Your task to perform on an android device: Do I have any events today? Image 0: 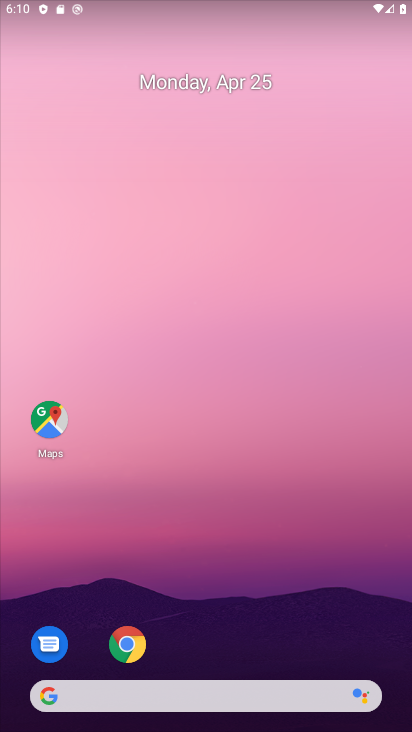
Step 0: drag from (256, 618) to (255, 116)
Your task to perform on an android device: Do I have any events today? Image 1: 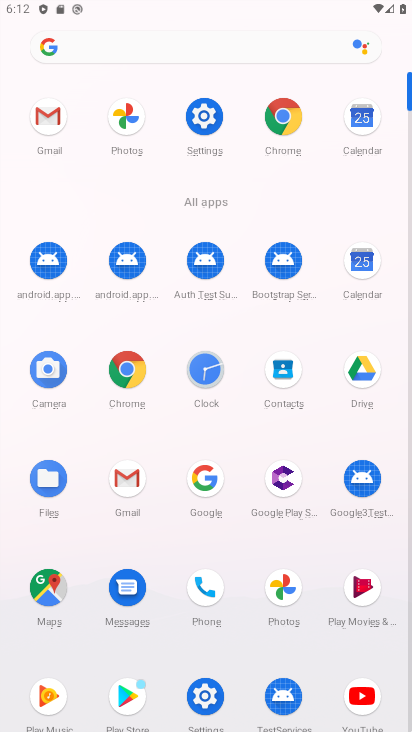
Step 1: click (311, 558)
Your task to perform on an android device: Do I have any events today? Image 2: 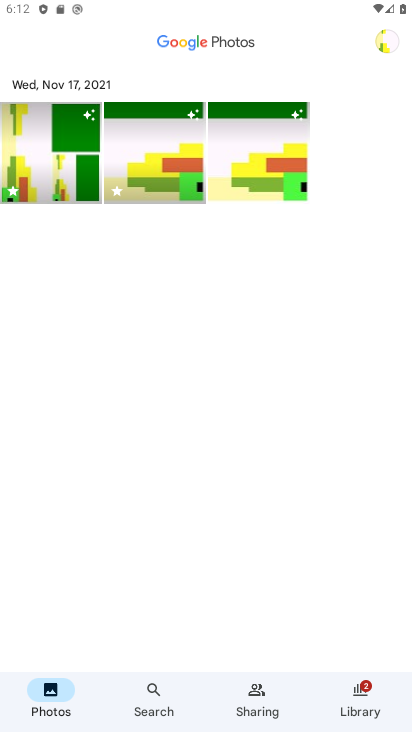
Step 2: press home button
Your task to perform on an android device: Do I have any events today? Image 3: 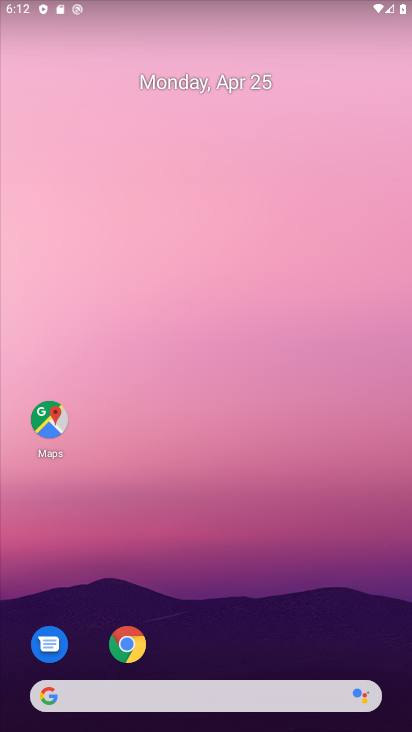
Step 3: drag from (236, 426) to (234, 83)
Your task to perform on an android device: Do I have any events today? Image 4: 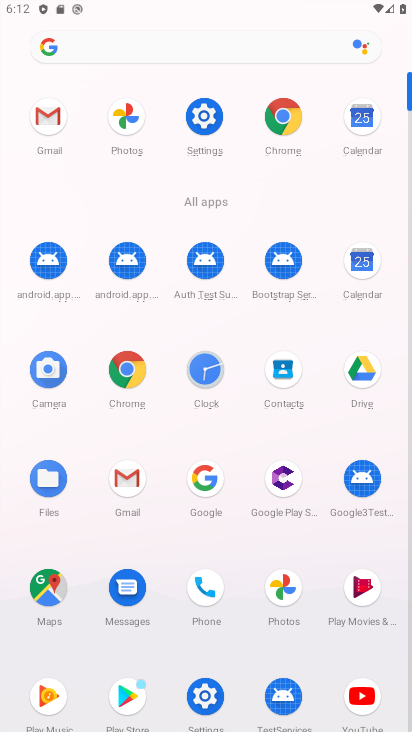
Step 4: click (369, 263)
Your task to perform on an android device: Do I have any events today? Image 5: 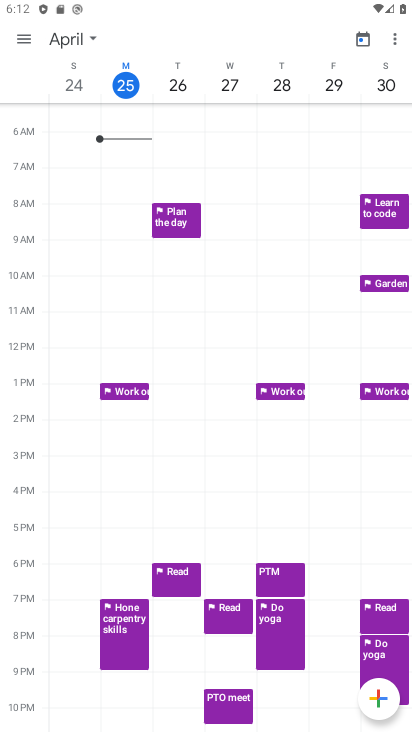
Step 5: click (21, 41)
Your task to perform on an android device: Do I have any events today? Image 6: 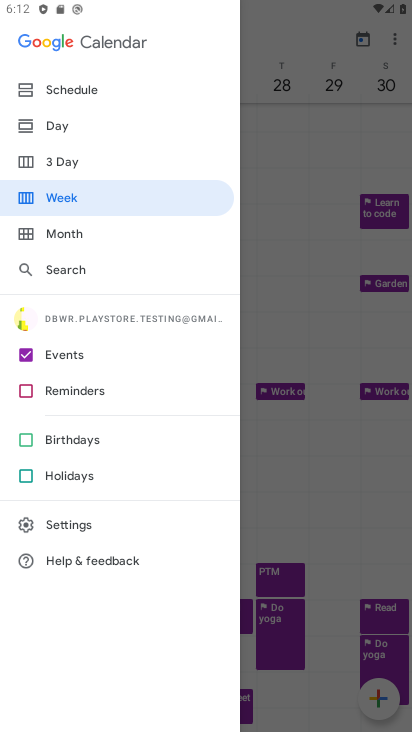
Step 6: click (83, 120)
Your task to perform on an android device: Do I have any events today? Image 7: 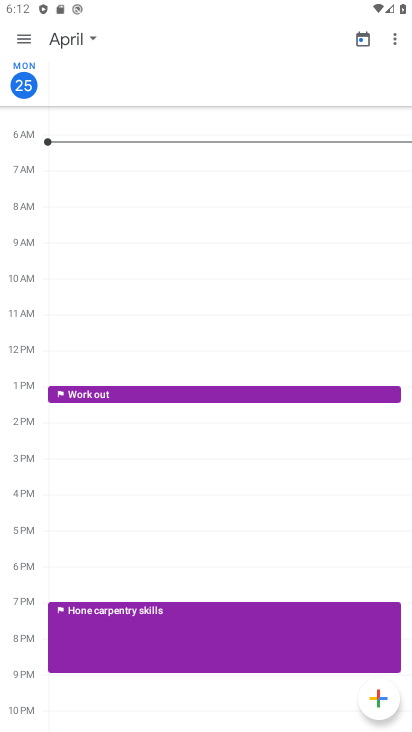
Step 7: task complete